Your task to perform on an android device: toggle priority inbox in the gmail app Image 0: 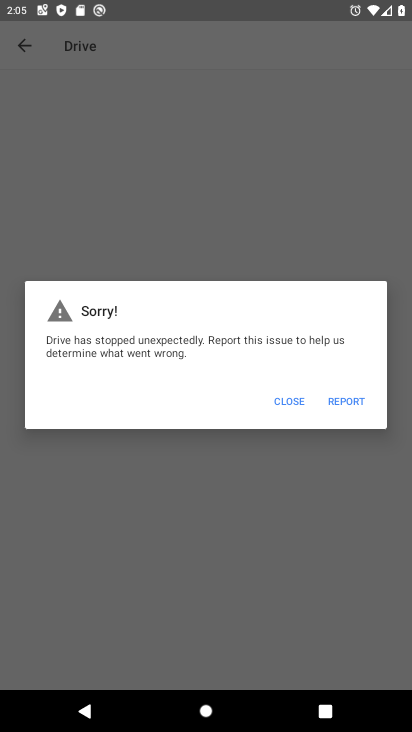
Step 0: press home button
Your task to perform on an android device: toggle priority inbox in the gmail app Image 1: 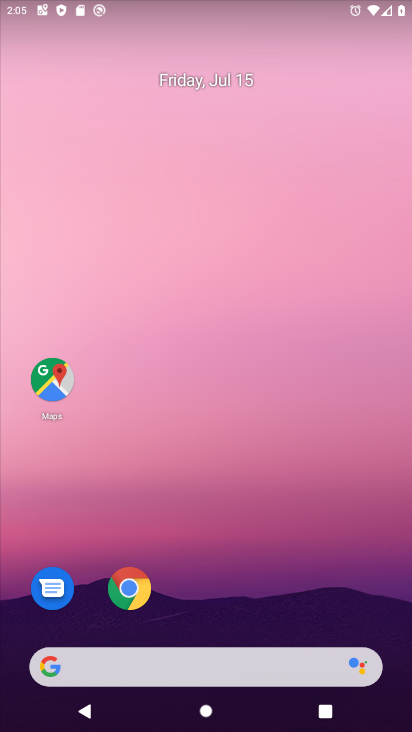
Step 1: drag from (182, 665) to (280, 294)
Your task to perform on an android device: toggle priority inbox in the gmail app Image 2: 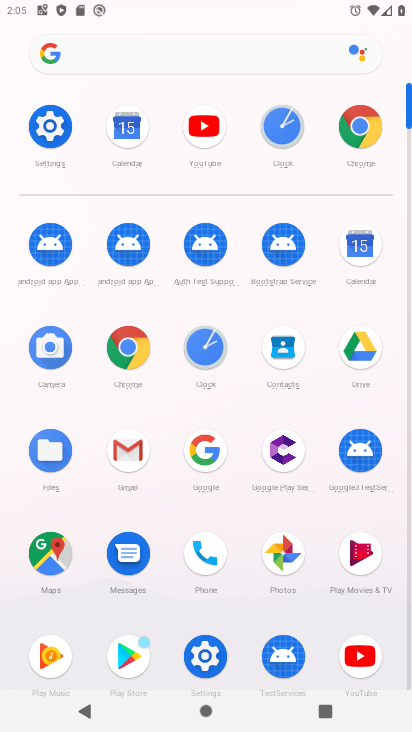
Step 2: click (127, 450)
Your task to perform on an android device: toggle priority inbox in the gmail app Image 3: 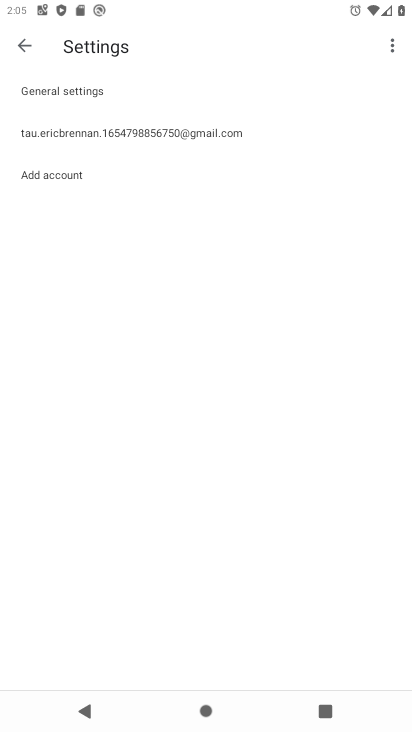
Step 3: click (111, 134)
Your task to perform on an android device: toggle priority inbox in the gmail app Image 4: 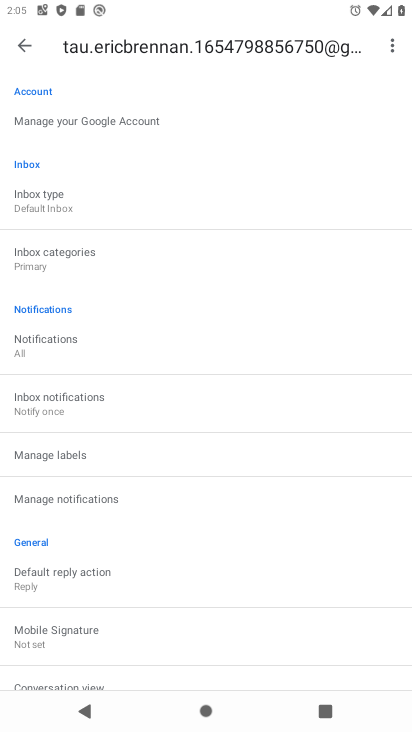
Step 4: click (51, 205)
Your task to perform on an android device: toggle priority inbox in the gmail app Image 5: 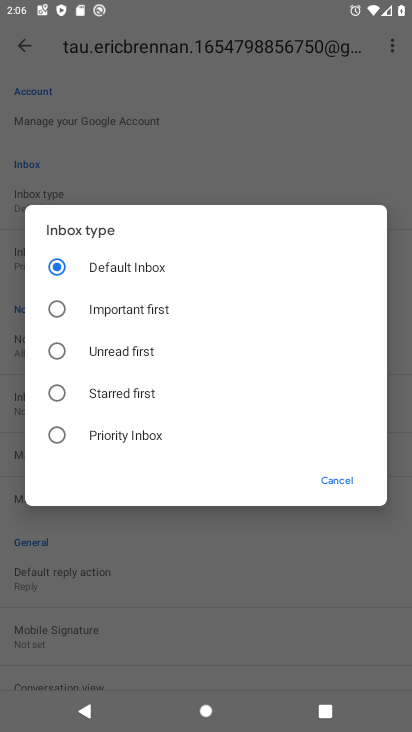
Step 5: click (57, 438)
Your task to perform on an android device: toggle priority inbox in the gmail app Image 6: 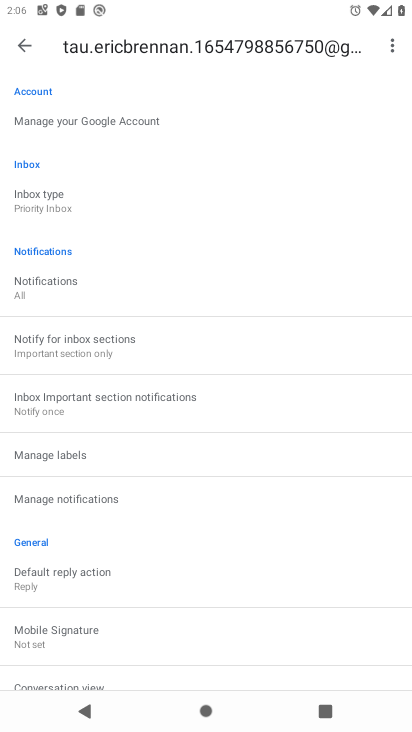
Step 6: task complete